Your task to perform on an android device: allow cookies in the chrome app Image 0: 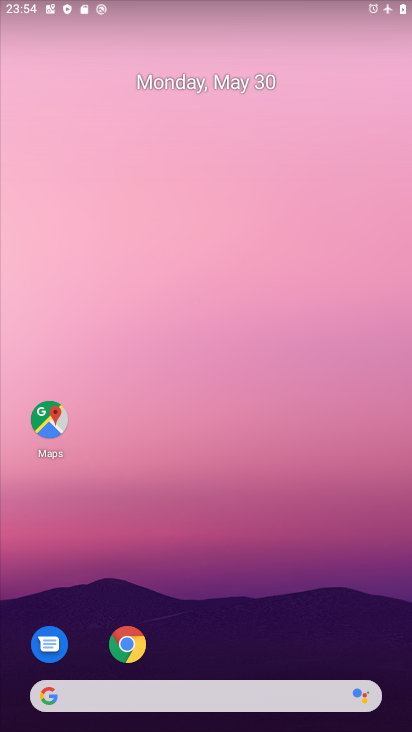
Step 0: click (126, 640)
Your task to perform on an android device: allow cookies in the chrome app Image 1: 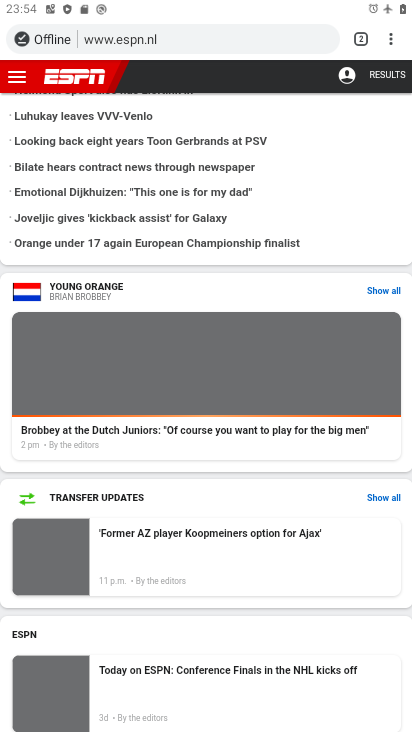
Step 1: click (390, 42)
Your task to perform on an android device: allow cookies in the chrome app Image 2: 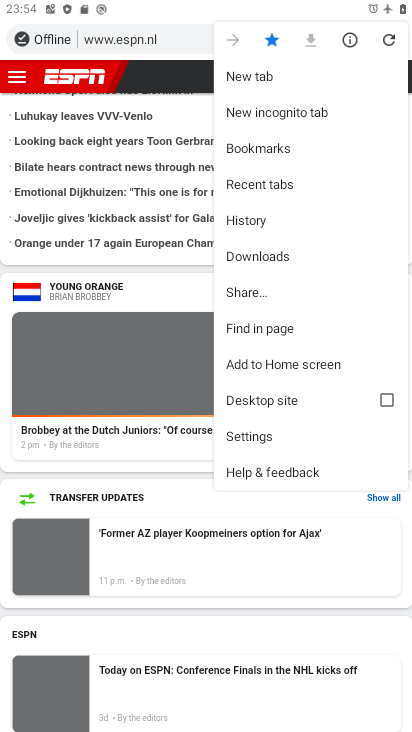
Step 2: click (266, 431)
Your task to perform on an android device: allow cookies in the chrome app Image 3: 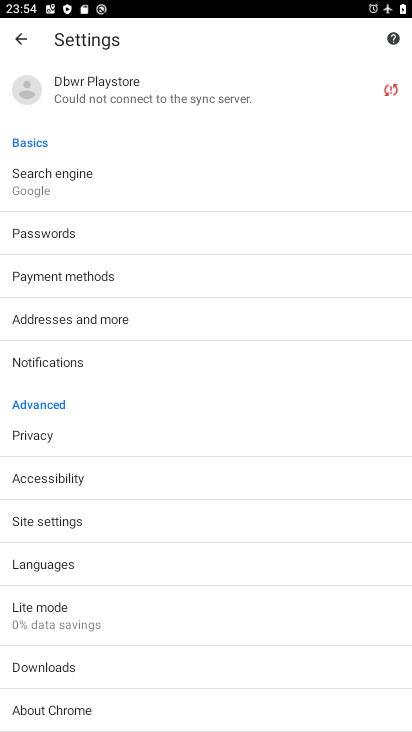
Step 3: click (81, 521)
Your task to perform on an android device: allow cookies in the chrome app Image 4: 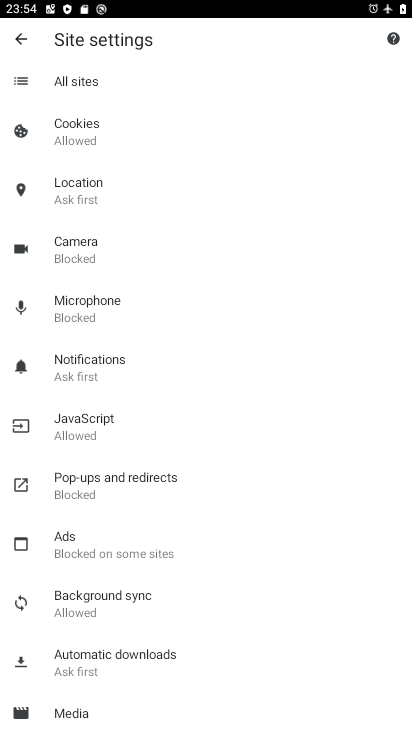
Step 4: click (73, 128)
Your task to perform on an android device: allow cookies in the chrome app Image 5: 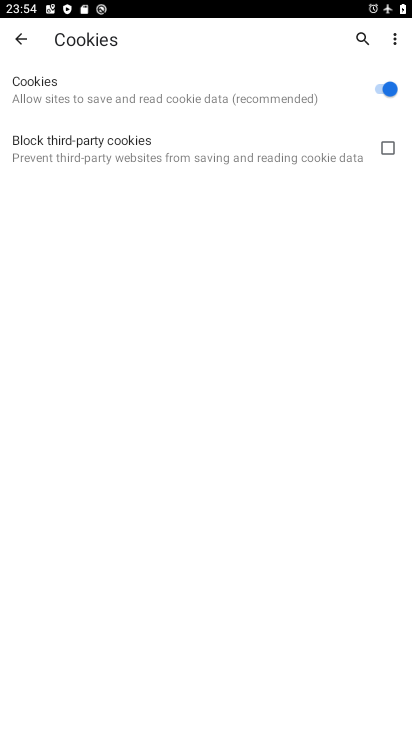
Step 5: task complete